Your task to perform on an android device: change the clock display to digital Image 0: 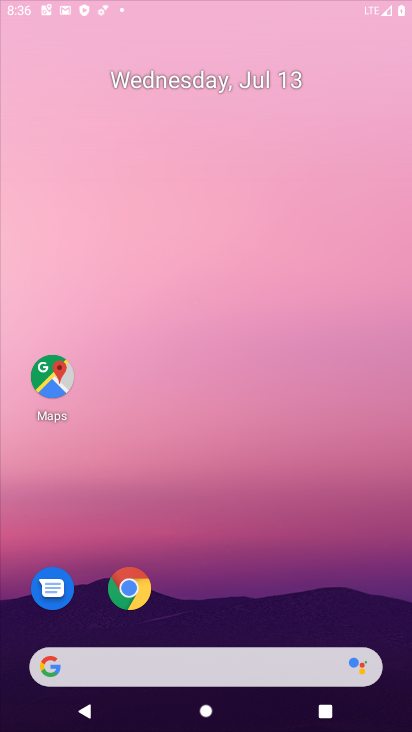
Step 0: press home button
Your task to perform on an android device: change the clock display to digital Image 1: 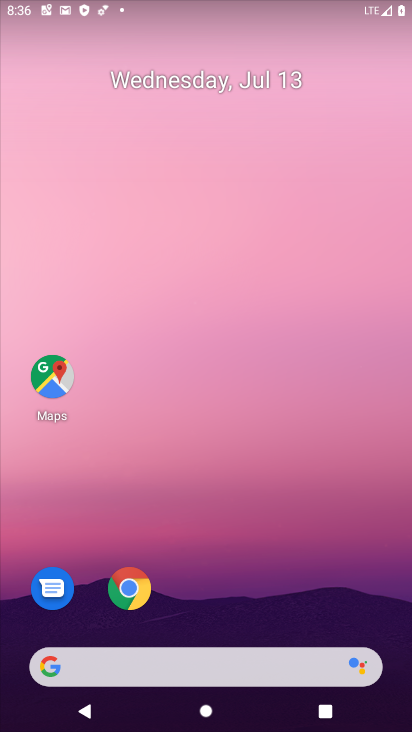
Step 1: drag from (244, 651) to (239, 228)
Your task to perform on an android device: change the clock display to digital Image 2: 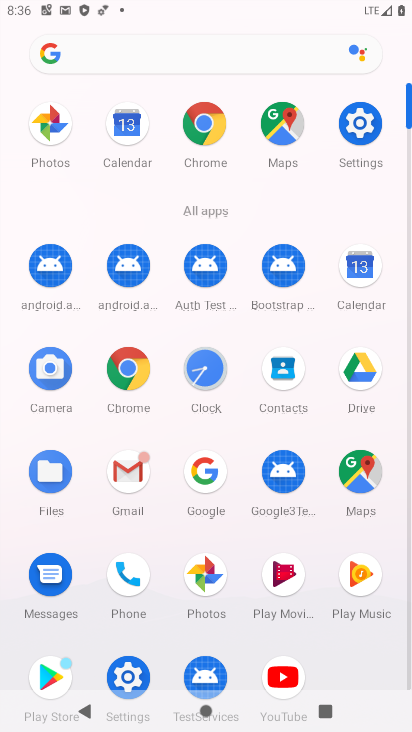
Step 2: click (201, 359)
Your task to perform on an android device: change the clock display to digital Image 3: 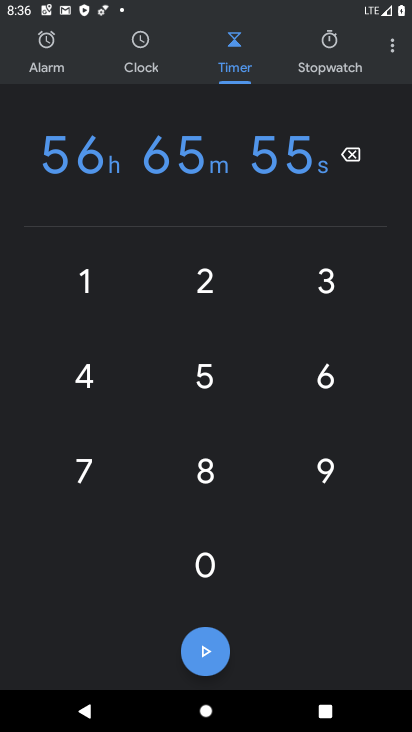
Step 3: click (402, 45)
Your task to perform on an android device: change the clock display to digital Image 4: 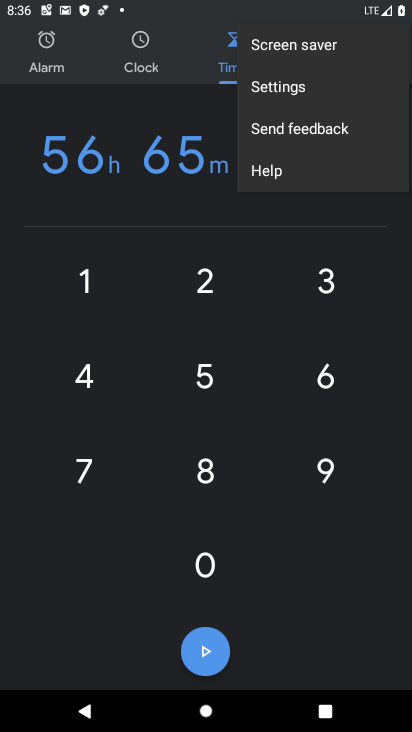
Step 4: click (308, 91)
Your task to perform on an android device: change the clock display to digital Image 5: 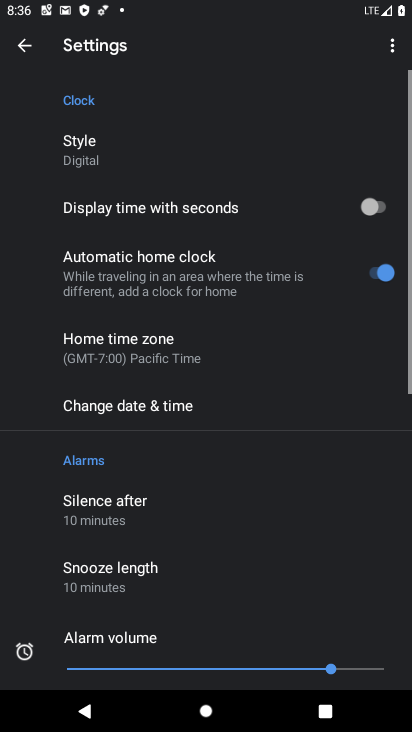
Step 5: click (101, 155)
Your task to perform on an android device: change the clock display to digital Image 6: 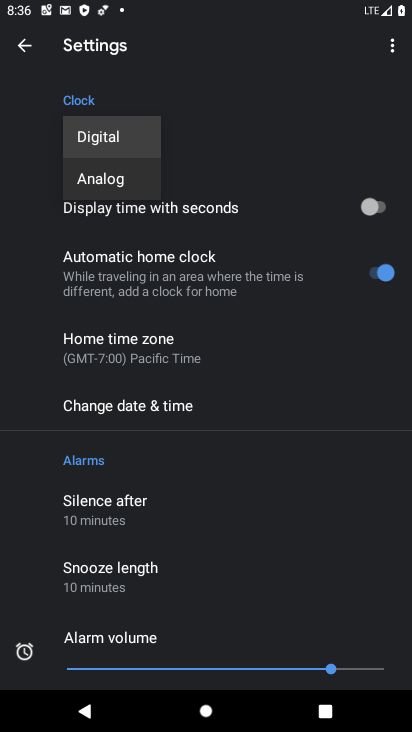
Step 6: click (107, 146)
Your task to perform on an android device: change the clock display to digital Image 7: 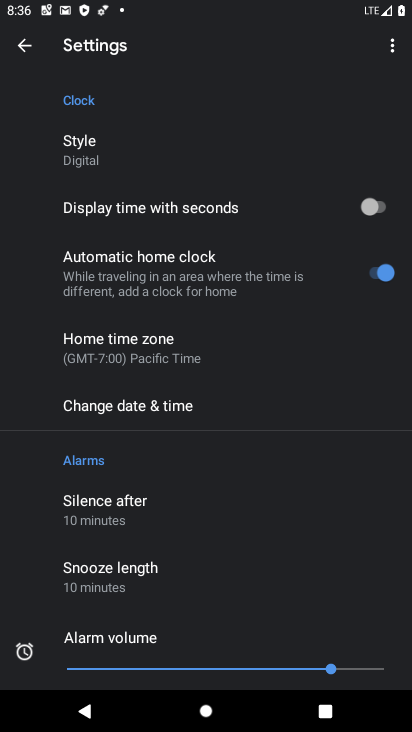
Step 7: task complete